Your task to perform on an android device: Show me recent news Image 0: 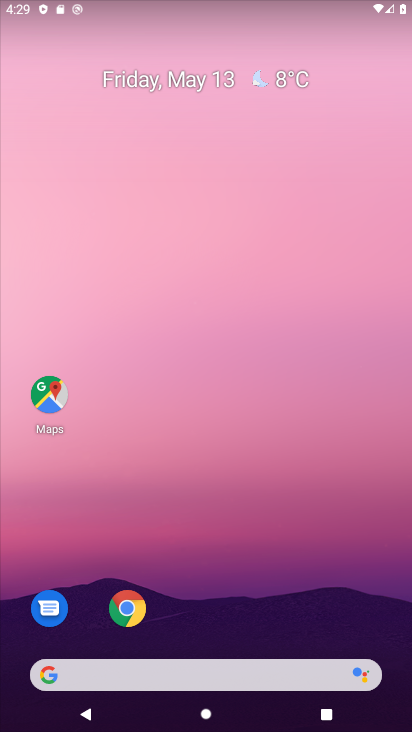
Step 0: drag from (252, 542) to (219, 97)
Your task to perform on an android device: Show me recent news Image 1: 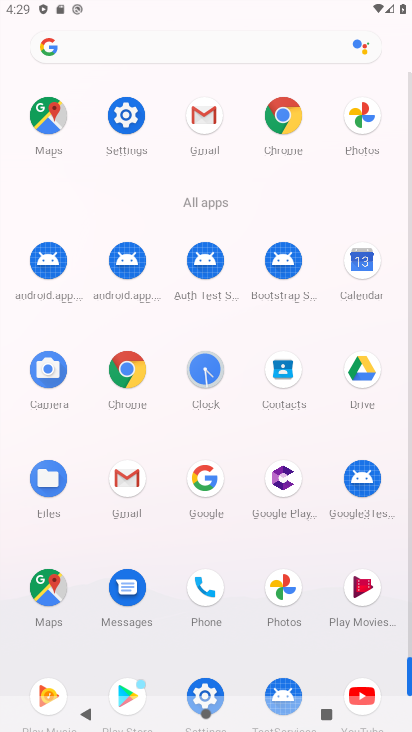
Step 1: click (203, 476)
Your task to perform on an android device: Show me recent news Image 2: 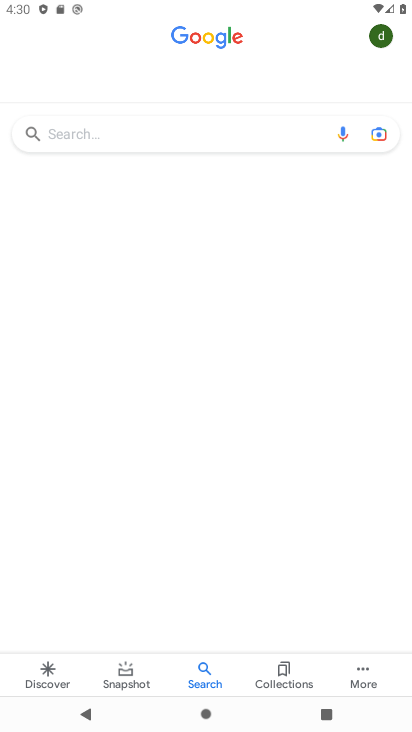
Step 2: click (125, 125)
Your task to perform on an android device: Show me recent news Image 3: 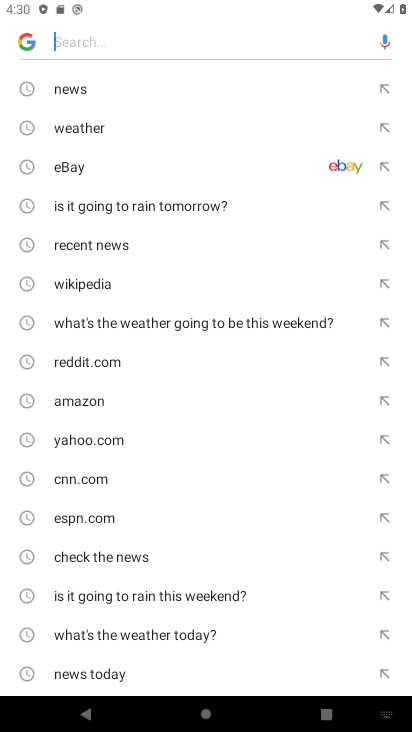
Step 3: click (103, 248)
Your task to perform on an android device: Show me recent news Image 4: 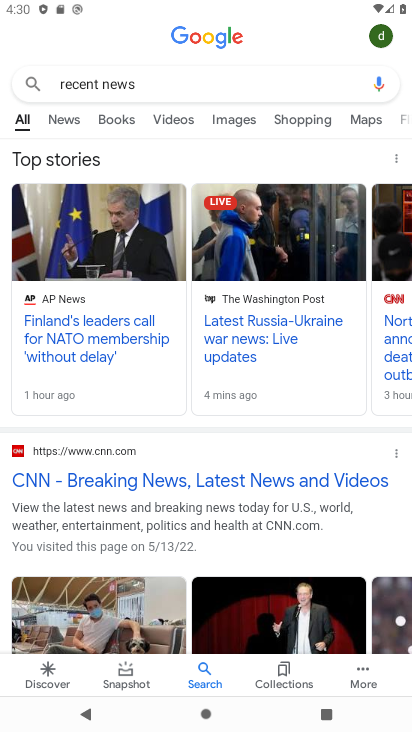
Step 4: task complete